Your task to perform on an android device: What's the weather today? Image 0: 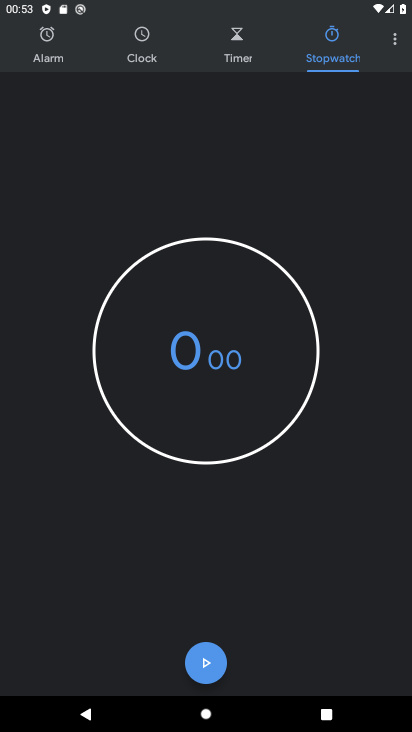
Step 0: press home button
Your task to perform on an android device: What's the weather today? Image 1: 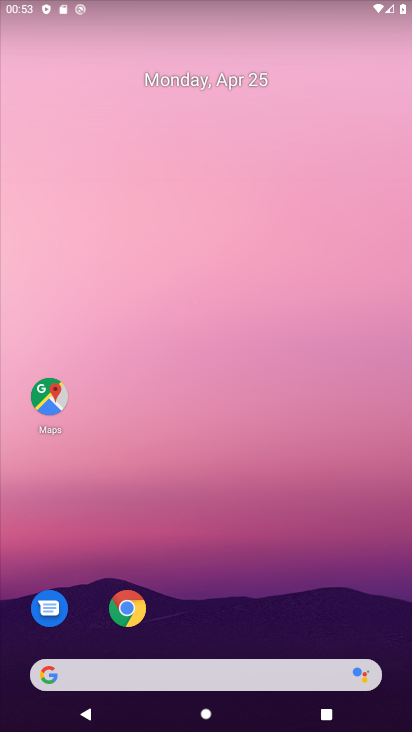
Step 1: click (132, 615)
Your task to perform on an android device: What's the weather today? Image 2: 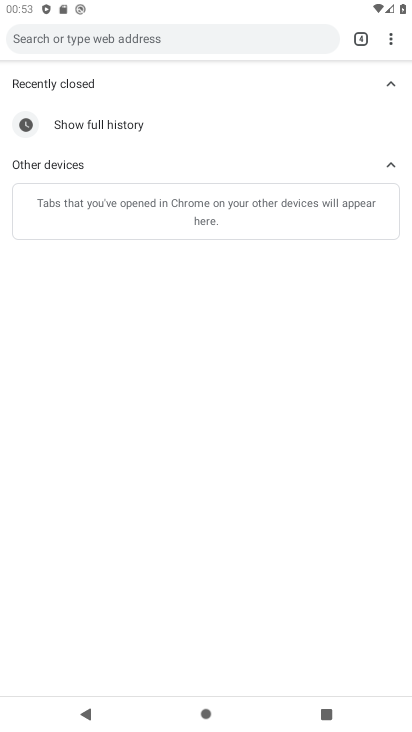
Step 2: drag from (173, 726) to (227, 656)
Your task to perform on an android device: What's the weather today? Image 3: 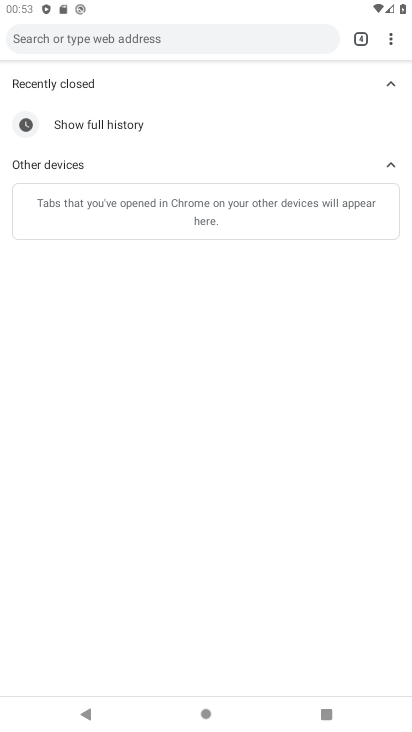
Step 3: click (215, 38)
Your task to perform on an android device: What's the weather today? Image 4: 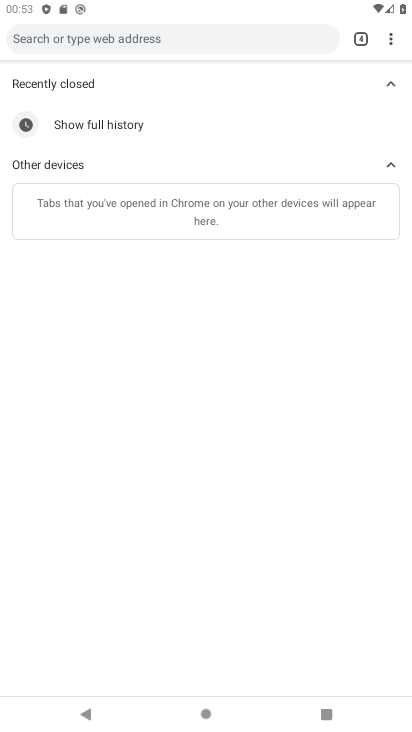
Step 4: click (215, 38)
Your task to perform on an android device: What's the weather today? Image 5: 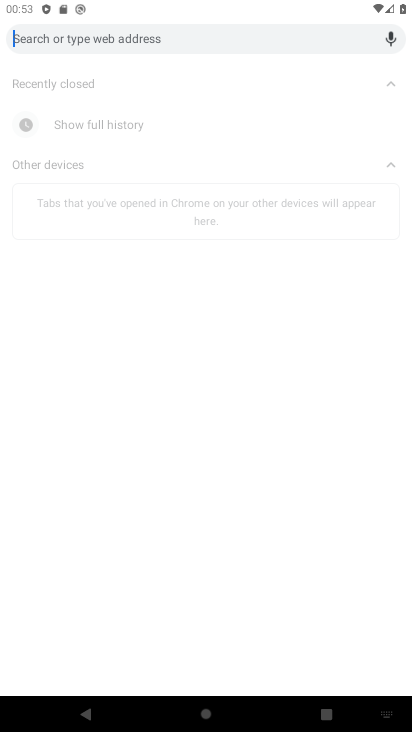
Step 5: type "What's the weather today?"
Your task to perform on an android device: What's the weather today? Image 6: 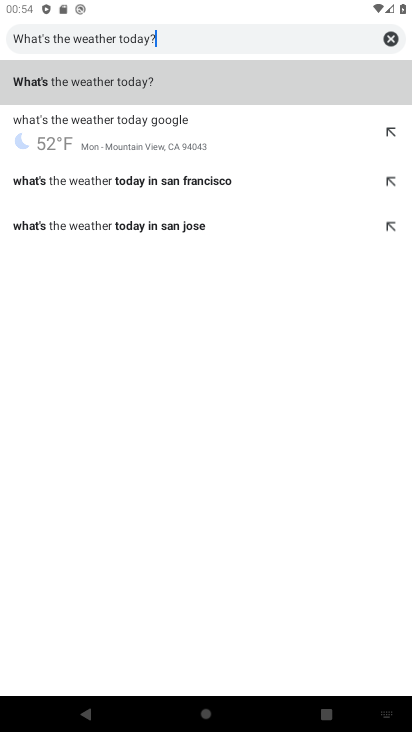
Step 6: click (249, 80)
Your task to perform on an android device: What's the weather today? Image 7: 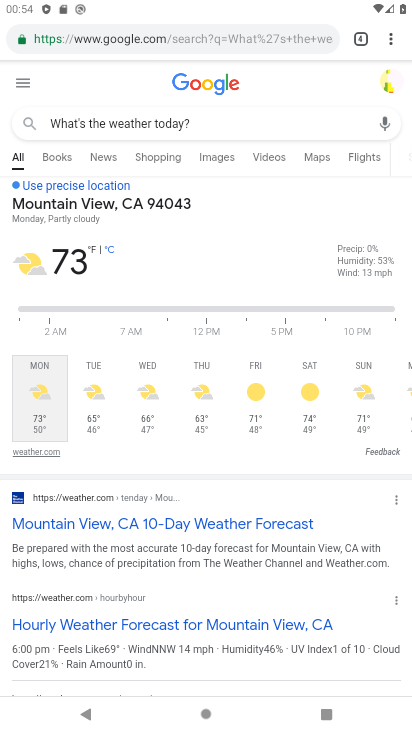
Step 7: task complete